Your task to perform on an android device: toggle improve location accuracy Image 0: 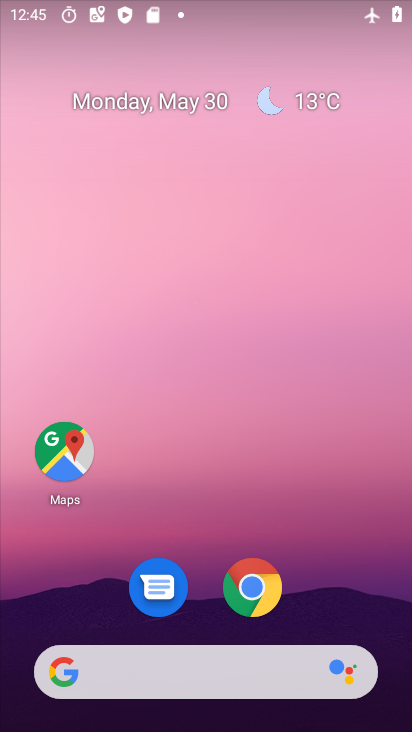
Step 0: drag from (324, 534) to (265, 82)
Your task to perform on an android device: toggle improve location accuracy Image 1: 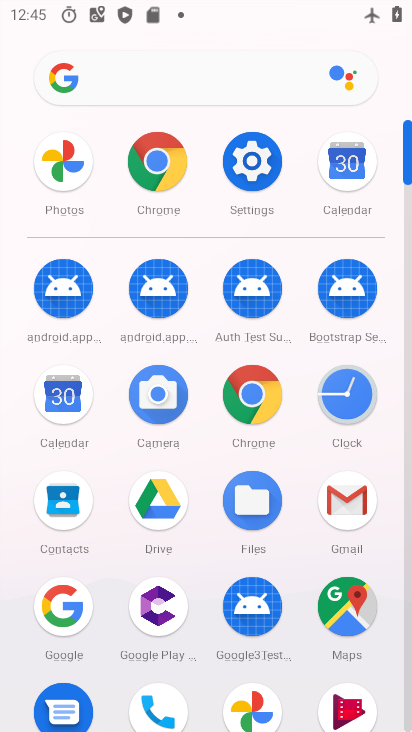
Step 1: click (262, 160)
Your task to perform on an android device: toggle improve location accuracy Image 2: 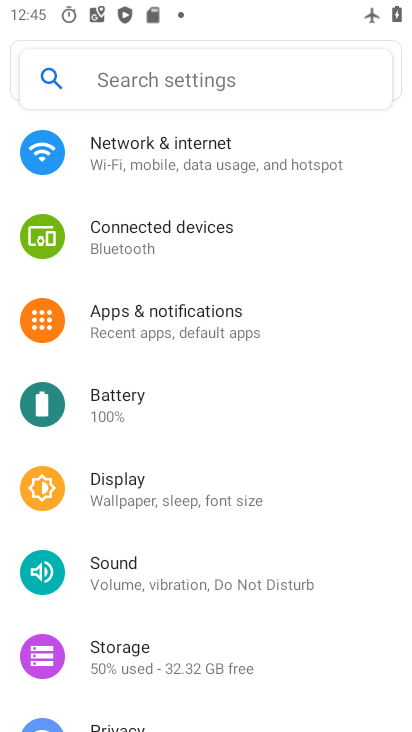
Step 2: drag from (262, 506) to (263, 113)
Your task to perform on an android device: toggle improve location accuracy Image 3: 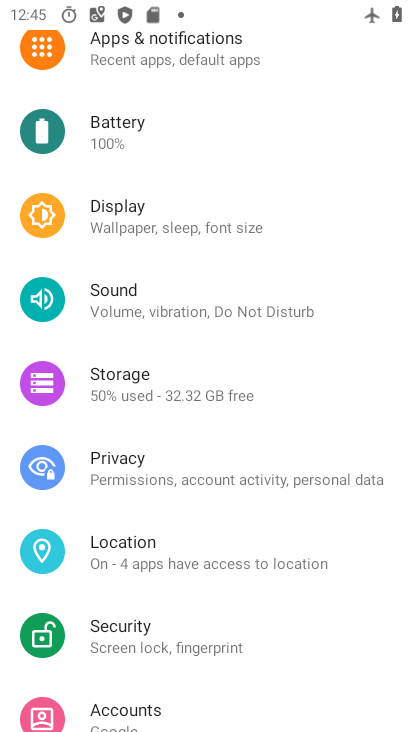
Step 3: drag from (230, 537) to (229, 152)
Your task to perform on an android device: toggle improve location accuracy Image 4: 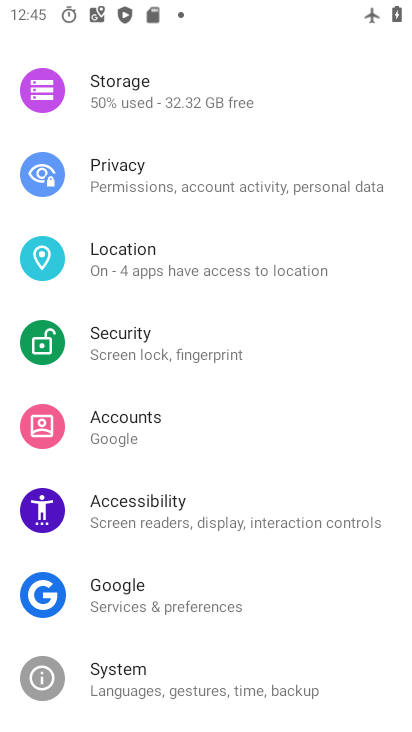
Step 4: click (231, 146)
Your task to perform on an android device: toggle improve location accuracy Image 5: 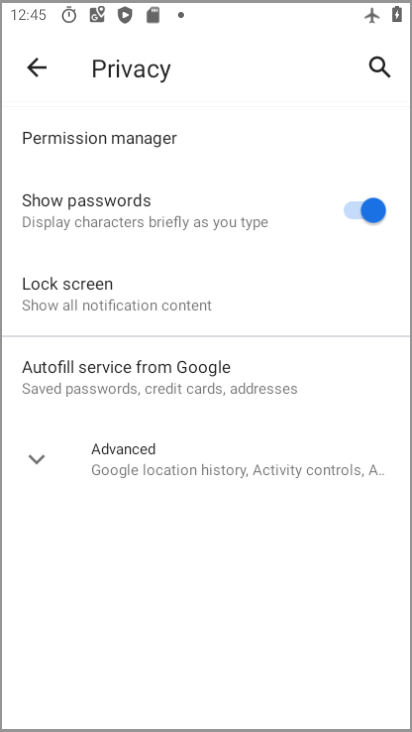
Step 5: click (176, 259)
Your task to perform on an android device: toggle improve location accuracy Image 6: 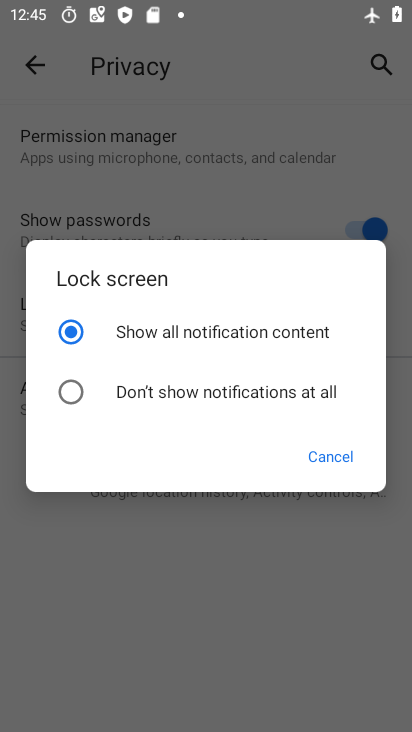
Step 6: click (41, 66)
Your task to perform on an android device: toggle improve location accuracy Image 7: 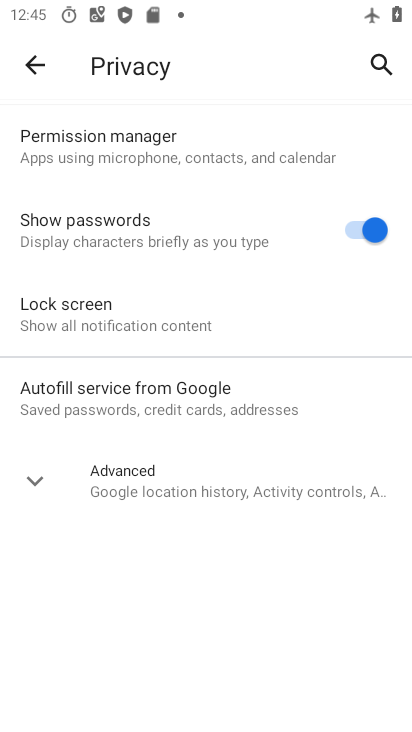
Step 7: click (42, 67)
Your task to perform on an android device: toggle improve location accuracy Image 8: 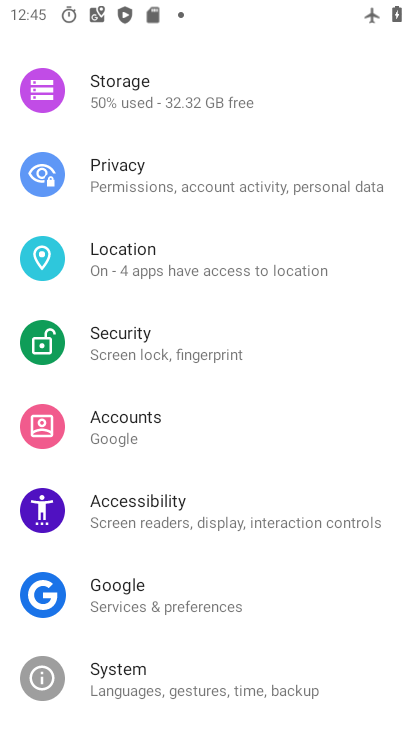
Step 8: click (188, 265)
Your task to perform on an android device: toggle improve location accuracy Image 9: 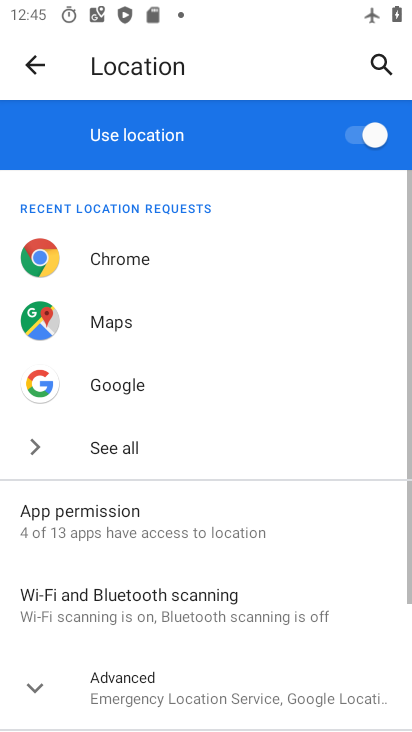
Step 9: drag from (195, 614) to (228, 193)
Your task to perform on an android device: toggle improve location accuracy Image 10: 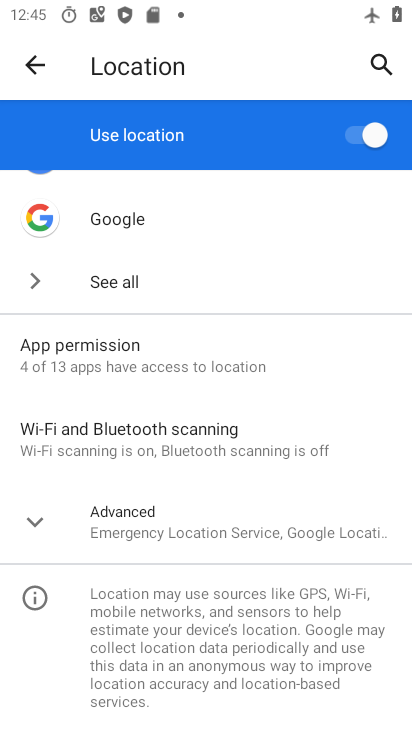
Step 10: click (156, 524)
Your task to perform on an android device: toggle improve location accuracy Image 11: 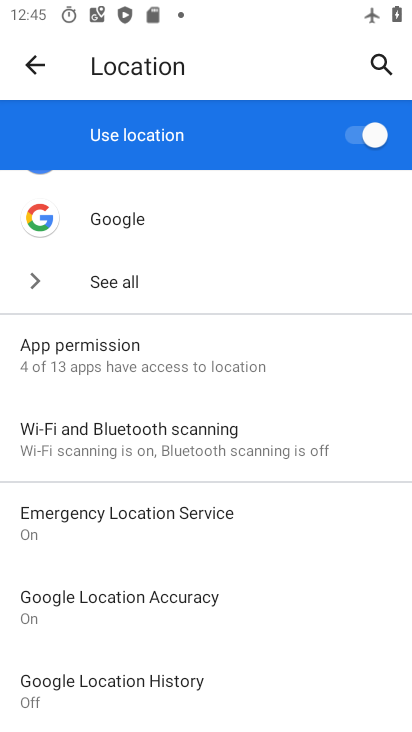
Step 11: click (205, 606)
Your task to perform on an android device: toggle improve location accuracy Image 12: 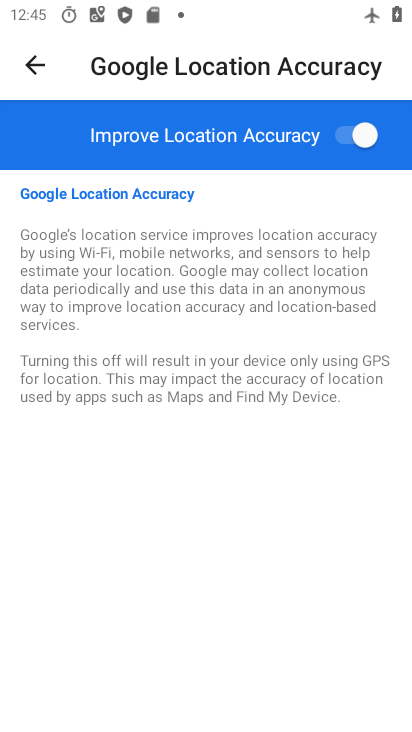
Step 12: click (378, 123)
Your task to perform on an android device: toggle improve location accuracy Image 13: 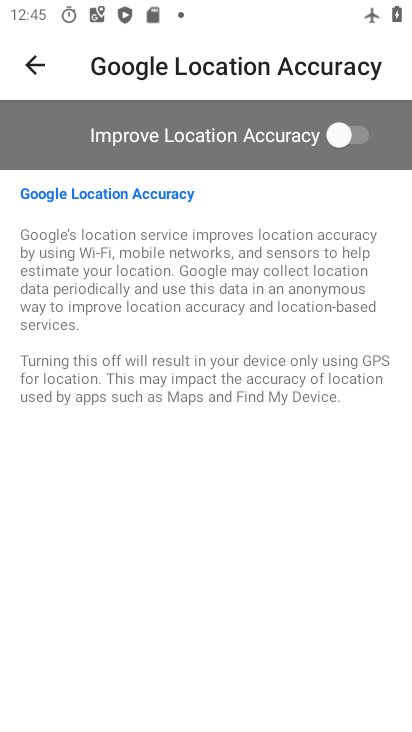
Step 13: task complete